Your task to perform on an android device: Open Maps and search for coffee Image 0: 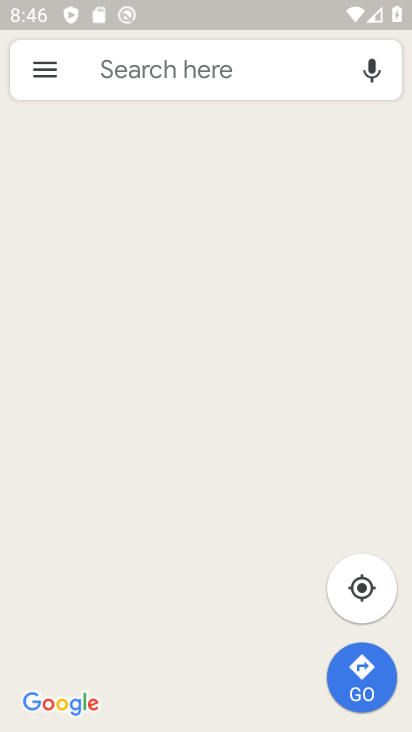
Step 0: click (245, 596)
Your task to perform on an android device: Open Maps and search for coffee Image 1: 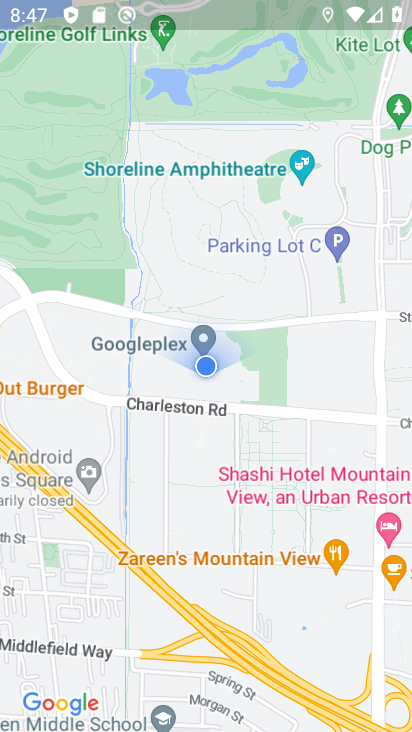
Step 1: click (120, 193)
Your task to perform on an android device: Open Maps and search for coffee Image 2: 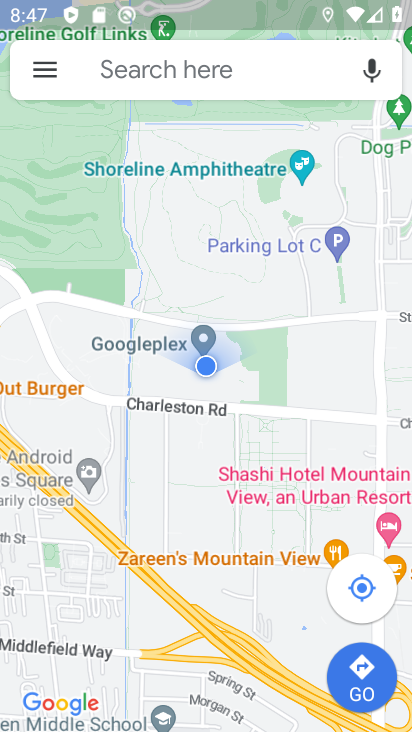
Step 2: click (143, 66)
Your task to perform on an android device: Open Maps and search for coffee Image 3: 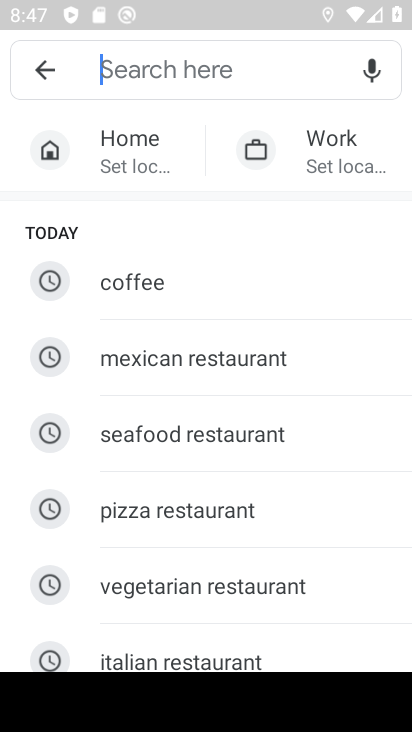
Step 3: type "coffee"
Your task to perform on an android device: Open Maps and search for coffee Image 4: 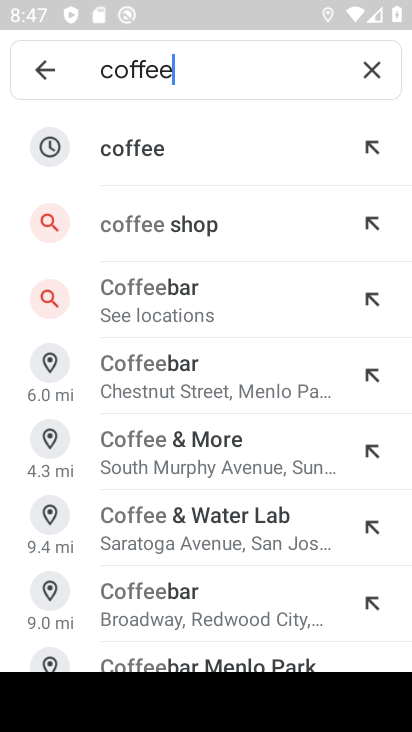
Step 4: click (130, 149)
Your task to perform on an android device: Open Maps and search for coffee Image 5: 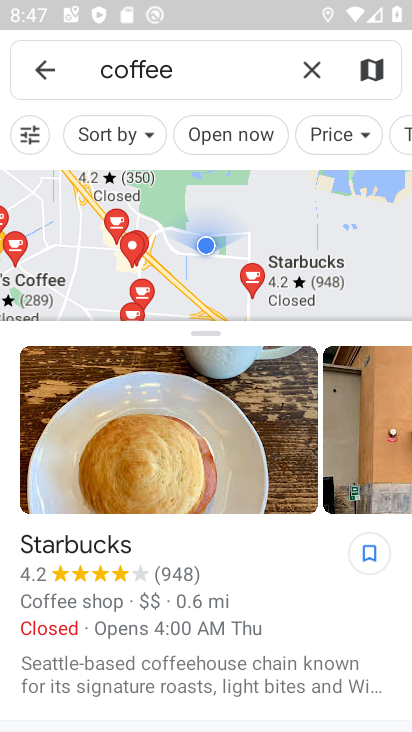
Step 5: task complete